Your task to perform on an android device: turn notification dots off Image 0: 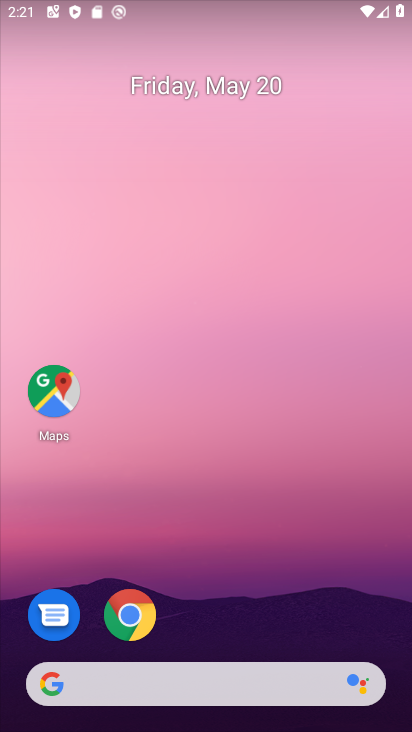
Step 0: drag from (229, 554) to (271, 190)
Your task to perform on an android device: turn notification dots off Image 1: 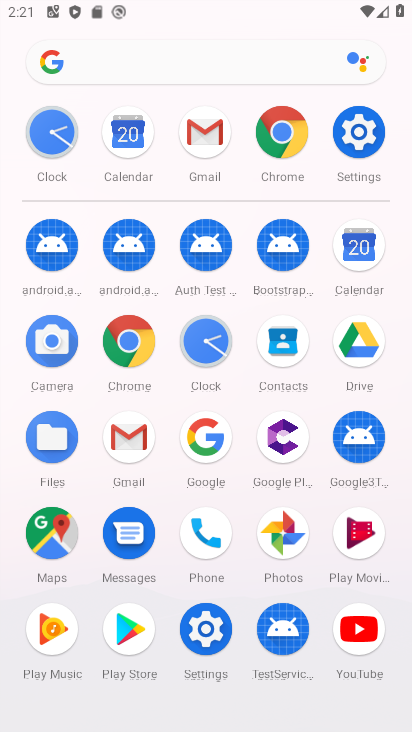
Step 1: click (373, 123)
Your task to perform on an android device: turn notification dots off Image 2: 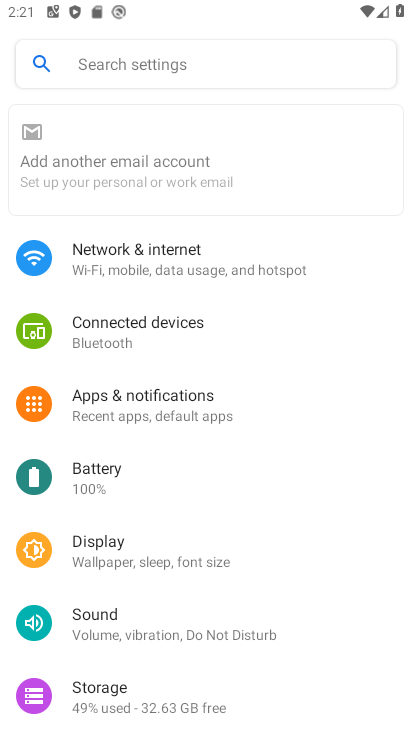
Step 2: click (167, 60)
Your task to perform on an android device: turn notification dots off Image 3: 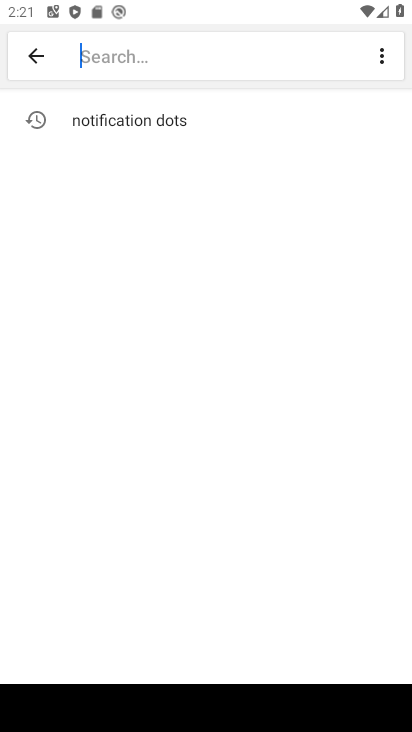
Step 3: click (148, 107)
Your task to perform on an android device: turn notification dots off Image 4: 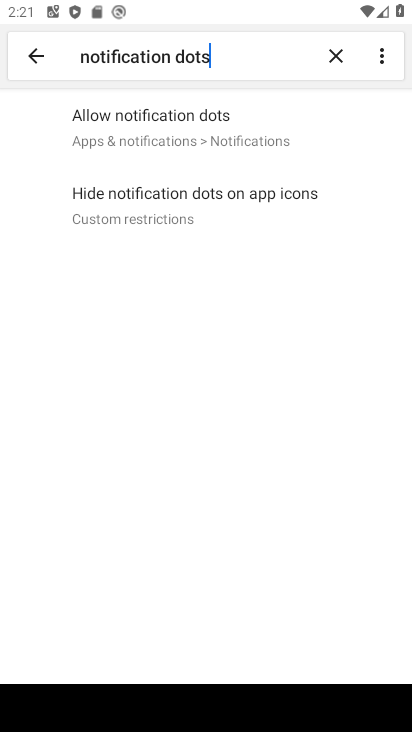
Step 4: click (237, 132)
Your task to perform on an android device: turn notification dots off Image 5: 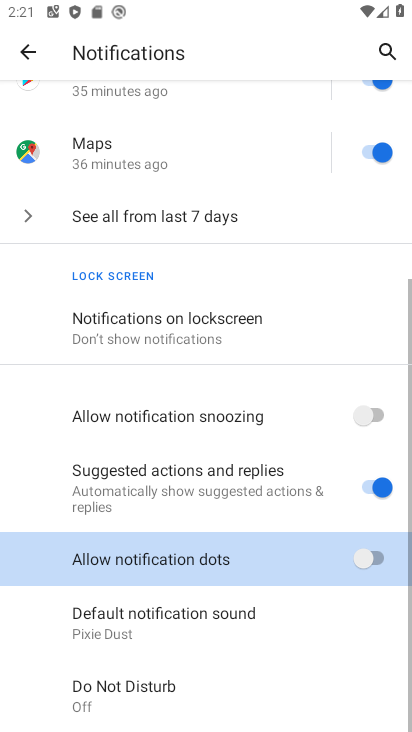
Step 5: click (375, 563)
Your task to perform on an android device: turn notification dots off Image 6: 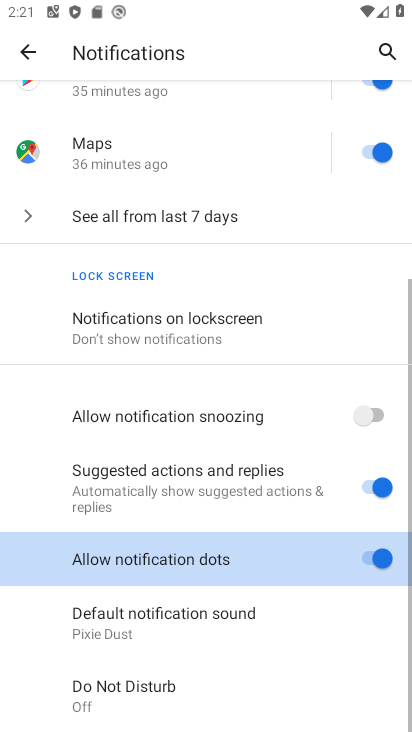
Step 6: click (375, 561)
Your task to perform on an android device: turn notification dots off Image 7: 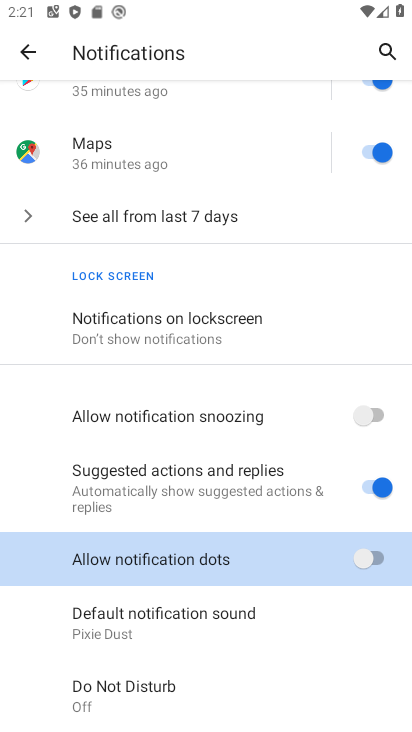
Step 7: task complete